Your task to perform on an android device: change the upload size in google photos Image 0: 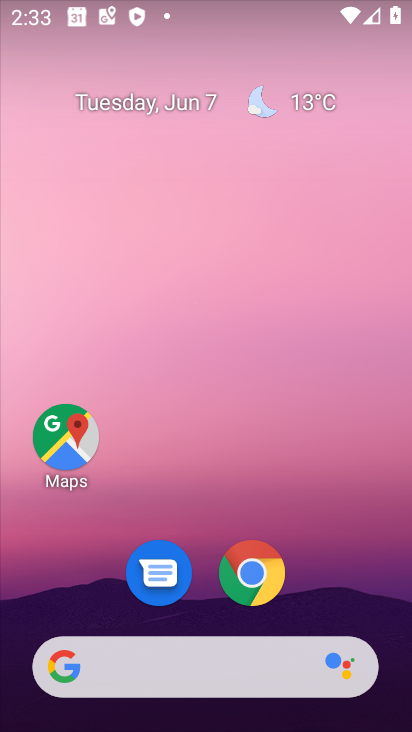
Step 0: drag from (319, 597) to (235, 27)
Your task to perform on an android device: change the upload size in google photos Image 1: 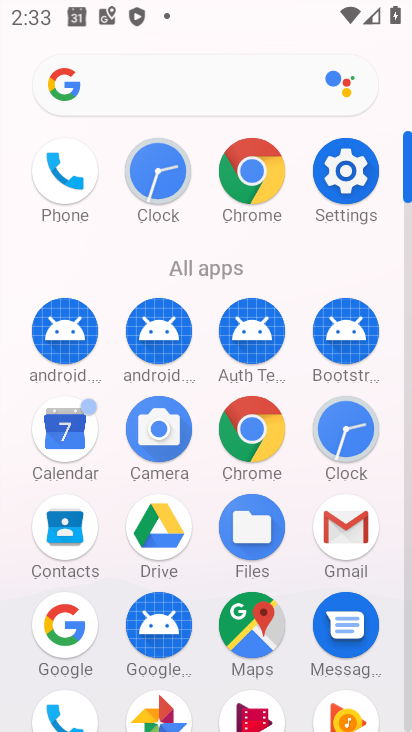
Step 1: drag from (205, 576) to (271, 246)
Your task to perform on an android device: change the upload size in google photos Image 2: 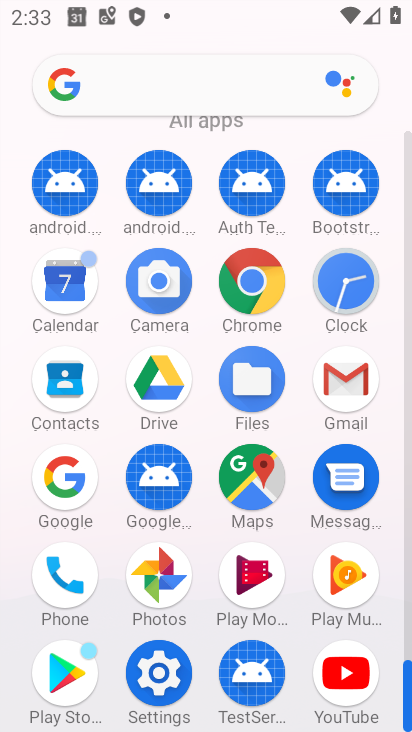
Step 2: click (164, 558)
Your task to perform on an android device: change the upload size in google photos Image 3: 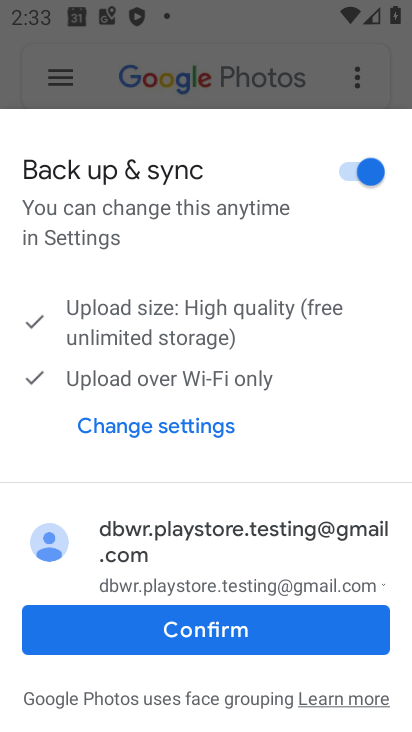
Step 3: click (46, 75)
Your task to perform on an android device: change the upload size in google photos Image 4: 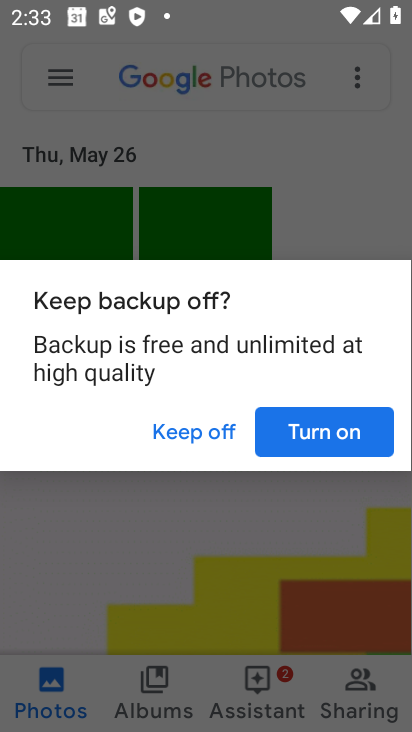
Step 4: click (319, 425)
Your task to perform on an android device: change the upload size in google photos Image 5: 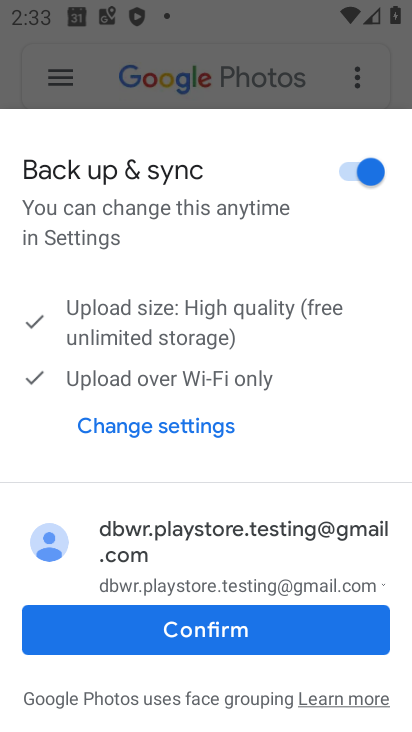
Step 5: click (170, 632)
Your task to perform on an android device: change the upload size in google photos Image 6: 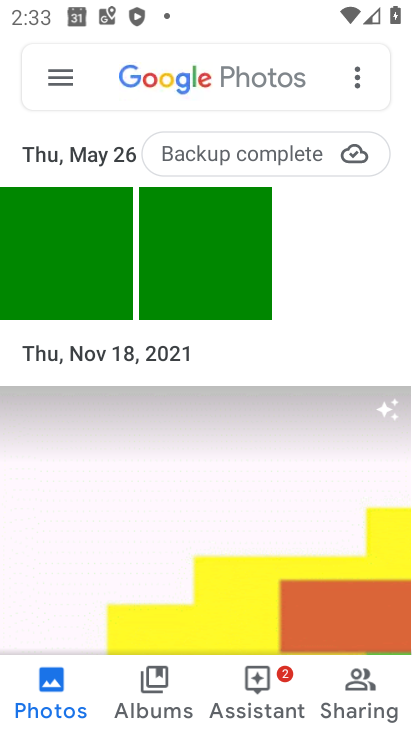
Step 6: click (57, 78)
Your task to perform on an android device: change the upload size in google photos Image 7: 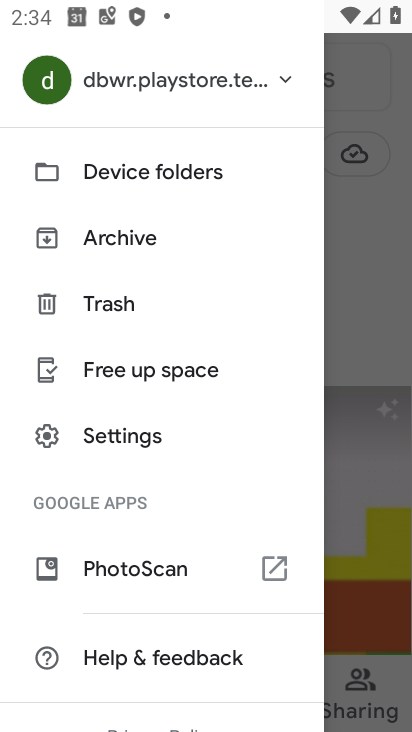
Step 7: click (122, 424)
Your task to perform on an android device: change the upload size in google photos Image 8: 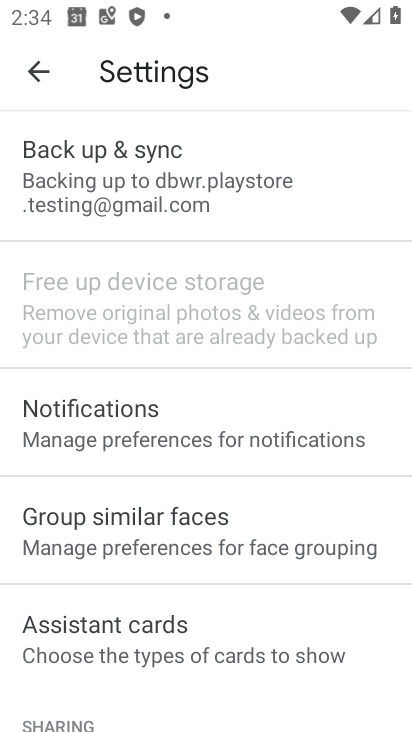
Step 8: click (116, 151)
Your task to perform on an android device: change the upload size in google photos Image 9: 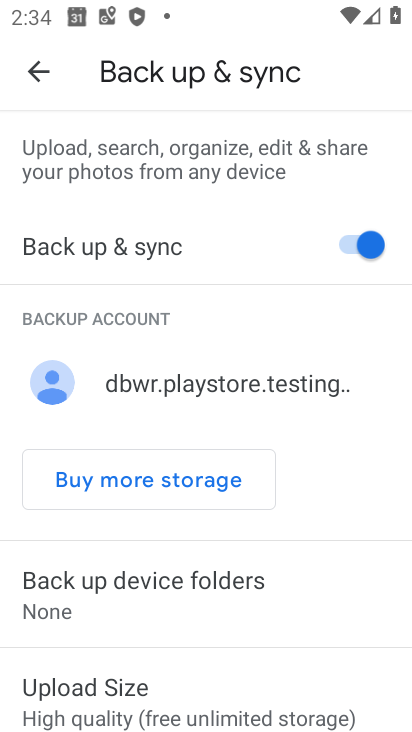
Step 9: drag from (195, 647) to (209, 183)
Your task to perform on an android device: change the upload size in google photos Image 10: 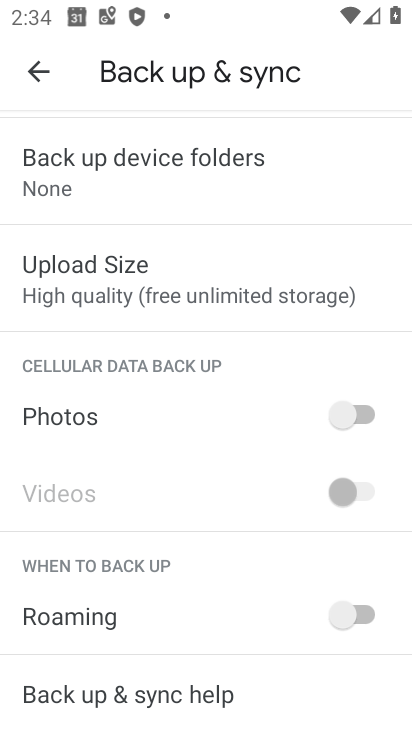
Step 10: click (148, 272)
Your task to perform on an android device: change the upload size in google photos Image 11: 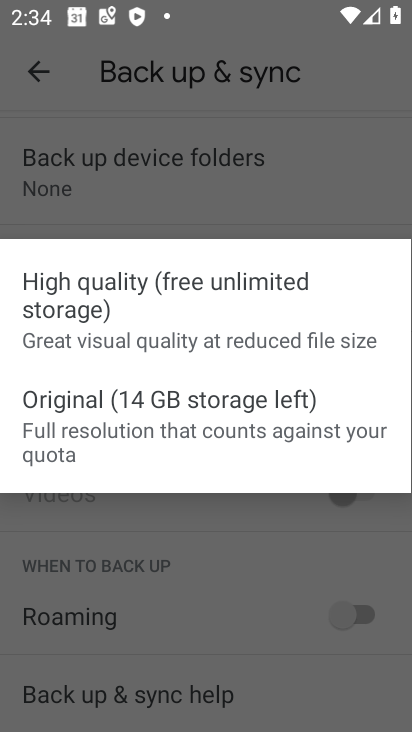
Step 11: click (143, 407)
Your task to perform on an android device: change the upload size in google photos Image 12: 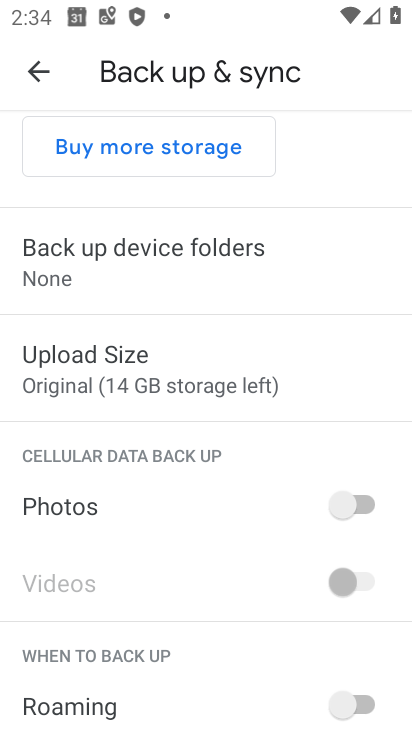
Step 12: task complete